Your task to perform on an android device: turn notification dots off Image 0: 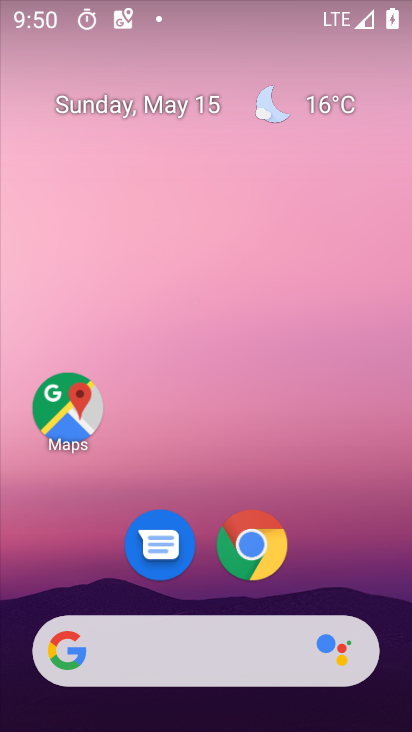
Step 0: drag from (353, 557) to (249, 83)
Your task to perform on an android device: turn notification dots off Image 1: 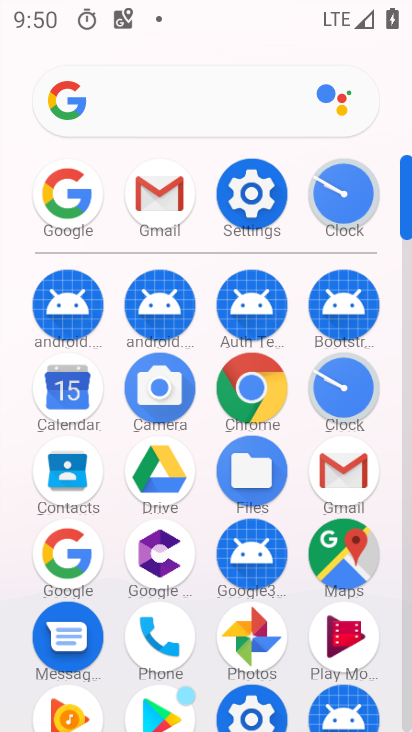
Step 1: click (250, 193)
Your task to perform on an android device: turn notification dots off Image 2: 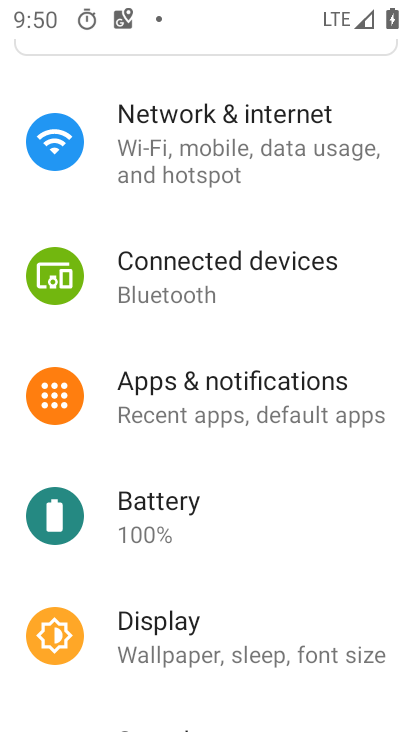
Step 2: click (220, 386)
Your task to perform on an android device: turn notification dots off Image 3: 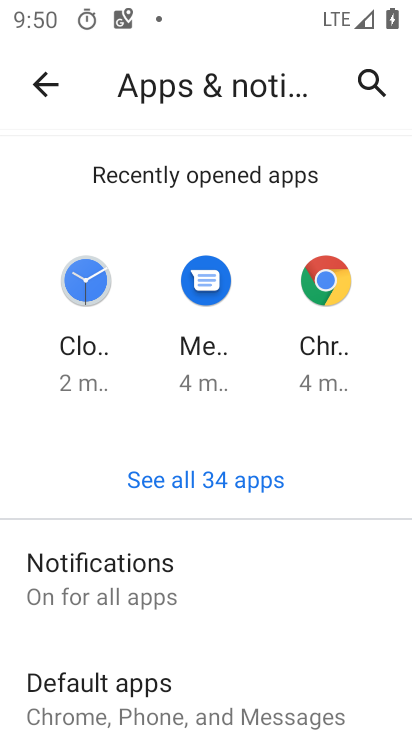
Step 3: click (110, 571)
Your task to perform on an android device: turn notification dots off Image 4: 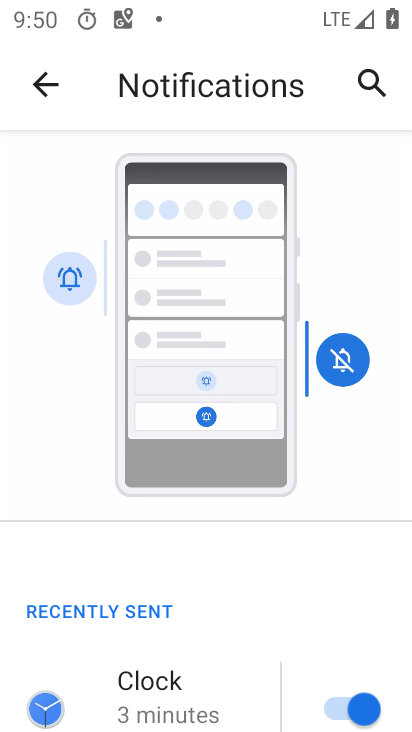
Step 4: drag from (229, 610) to (258, 346)
Your task to perform on an android device: turn notification dots off Image 5: 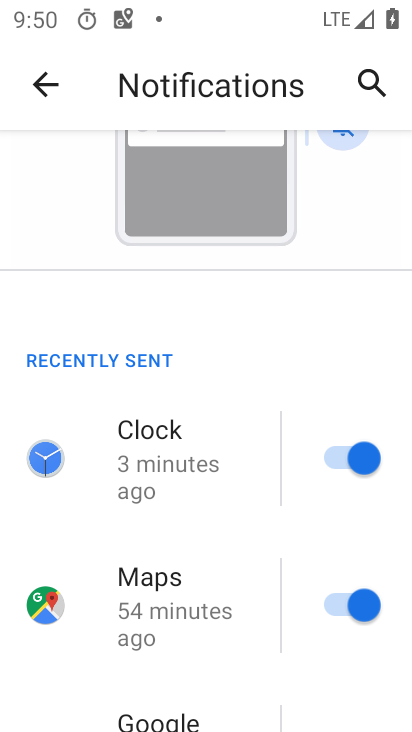
Step 5: drag from (192, 538) to (255, 340)
Your task to perform on an android device: turn notification dots off Image 6: 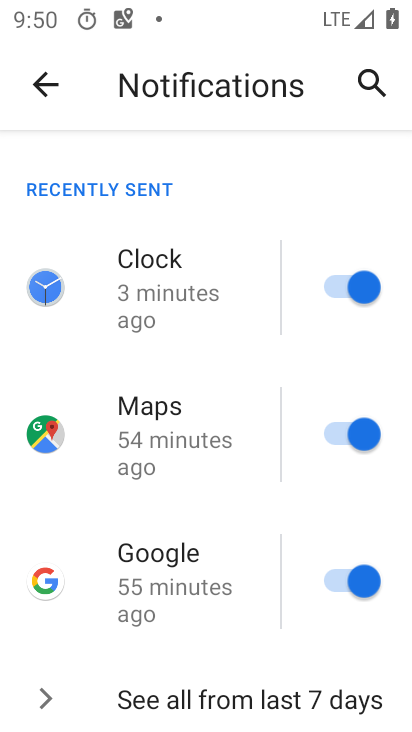
Step 6: drag from (171, 512) to (259, 351)
Your task to perform on an android device: turn notification dots off Image 7: 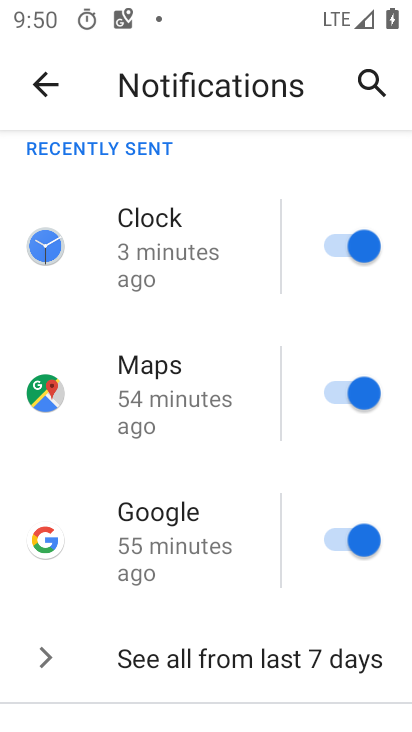
Step 7: drag from (175, 627) to (240, 429)
Your task to perform on an android device: turn notification dots off Image 8: 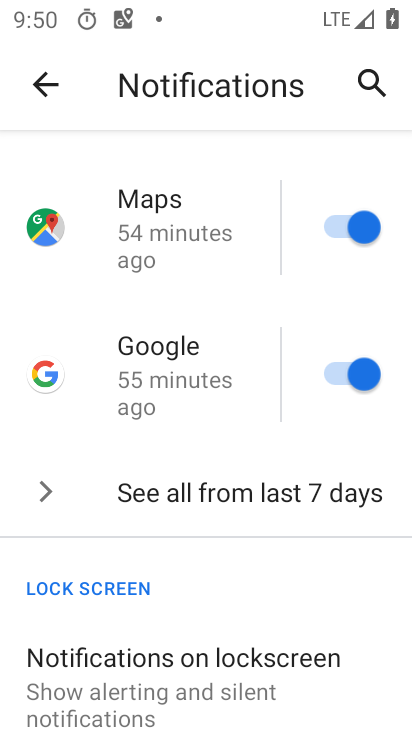
Step 8: drag from (174, 622) to (275, 441)
Your task to perform on an android device: turn notification dots off Image 9: 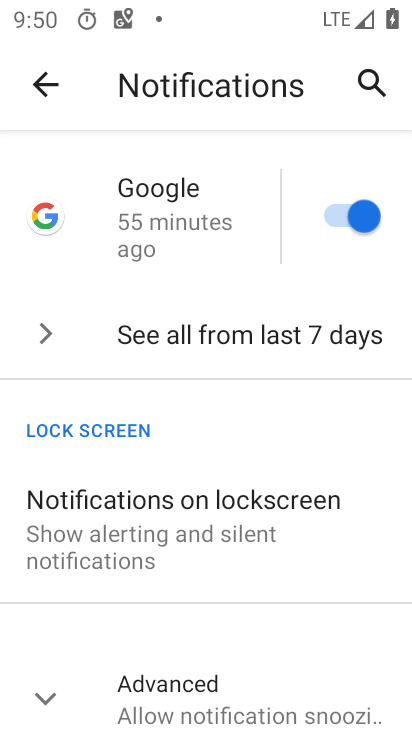
Step 9: drag from (199, 652) to (317, 456)
Your task to perform on an android device: turn notification dots off Image 10: 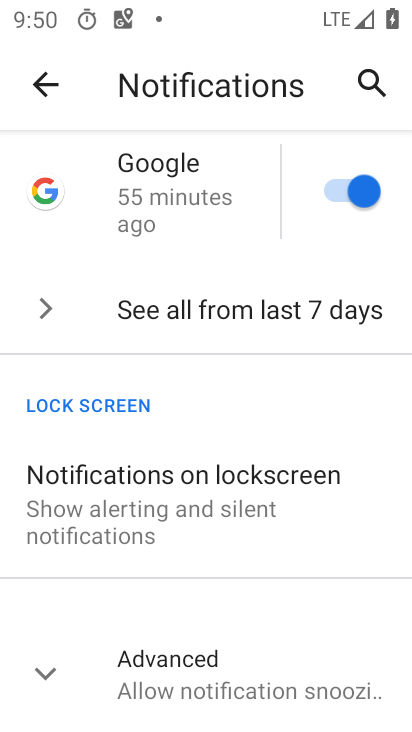
Step 10: click (211, 690)
Your task to perform on an android device: turn notification dots off Image 11: 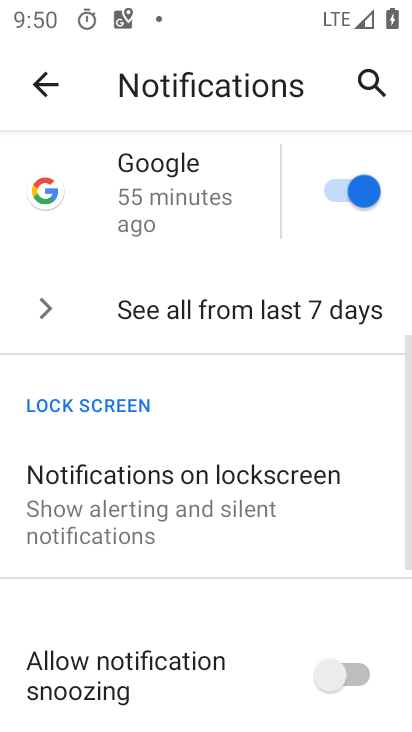
Step 11: drag from (213, 678) to (254, 547)
Your task to perform on an android device: turn notification dots off Image 12: 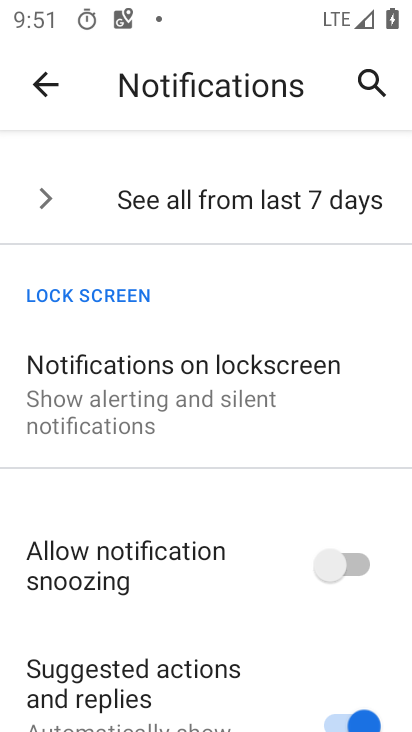
Step 12: drag from (210, 685) to (244, 510)
Your task to perform on an android device: turn notification dots off Image 13: 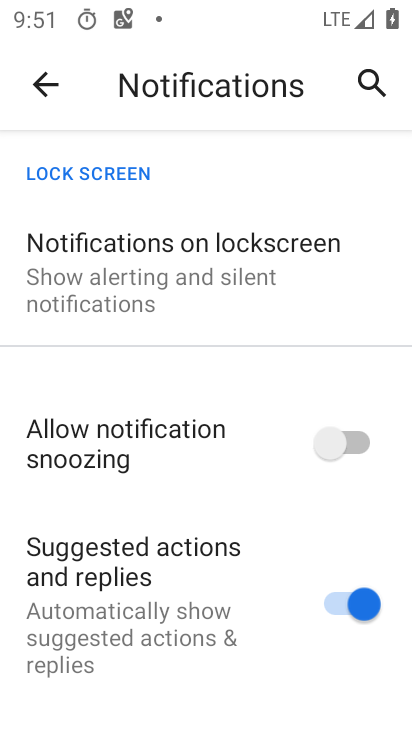
Step 13: drag from (176, 700) to (219, 545)
Your task to perform on an android device: turn notification dots off Image 14: 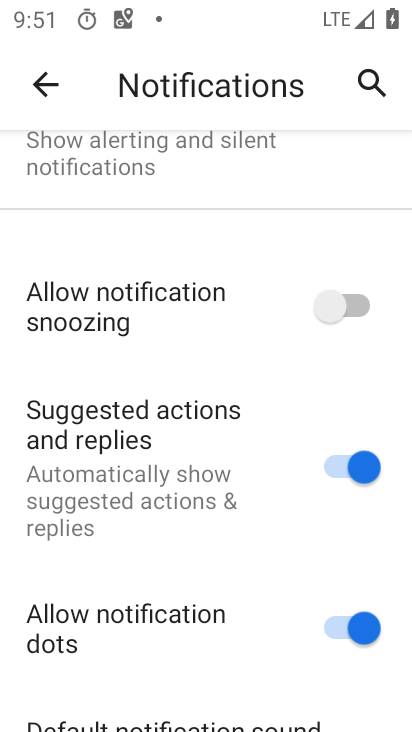
Step 14: click (368, 627)
Your task to perform on an android device: turn notification dots off Image 15: 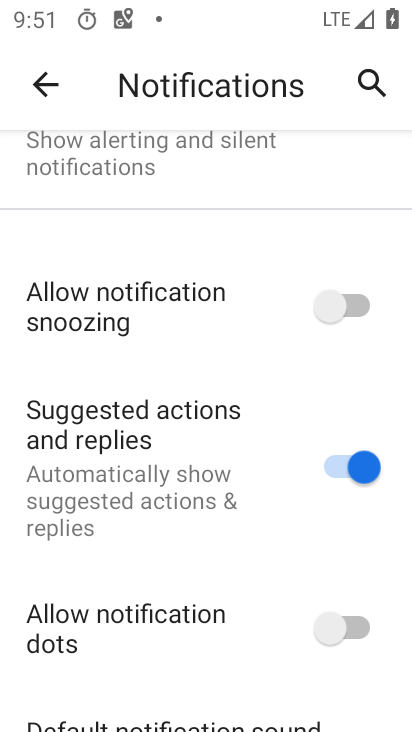
Step 15: task complete